Your task to perform on an android device: Check the news Image 0: 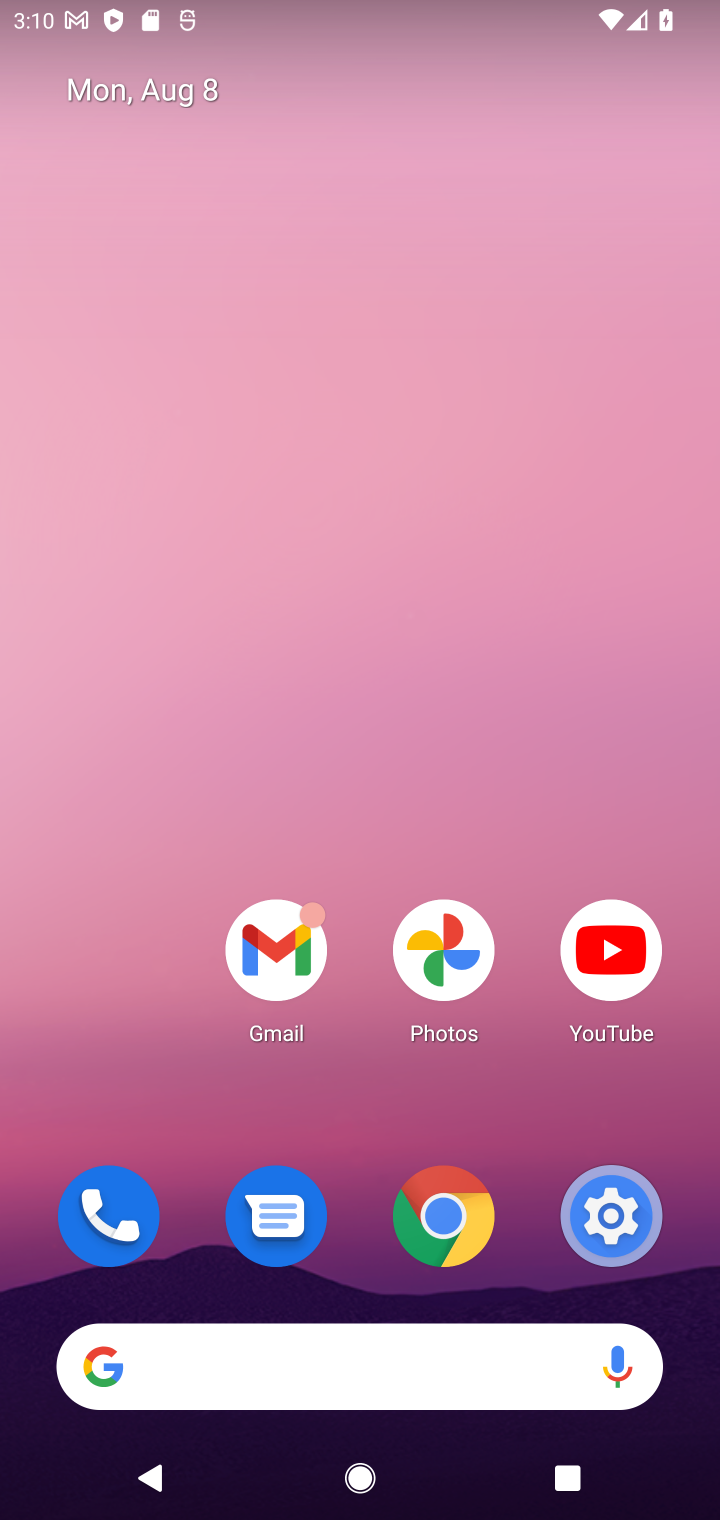
Step 0: drag from (3, 504) to (593, 578)
Your task to perform on an android device: Check the news Image 1: 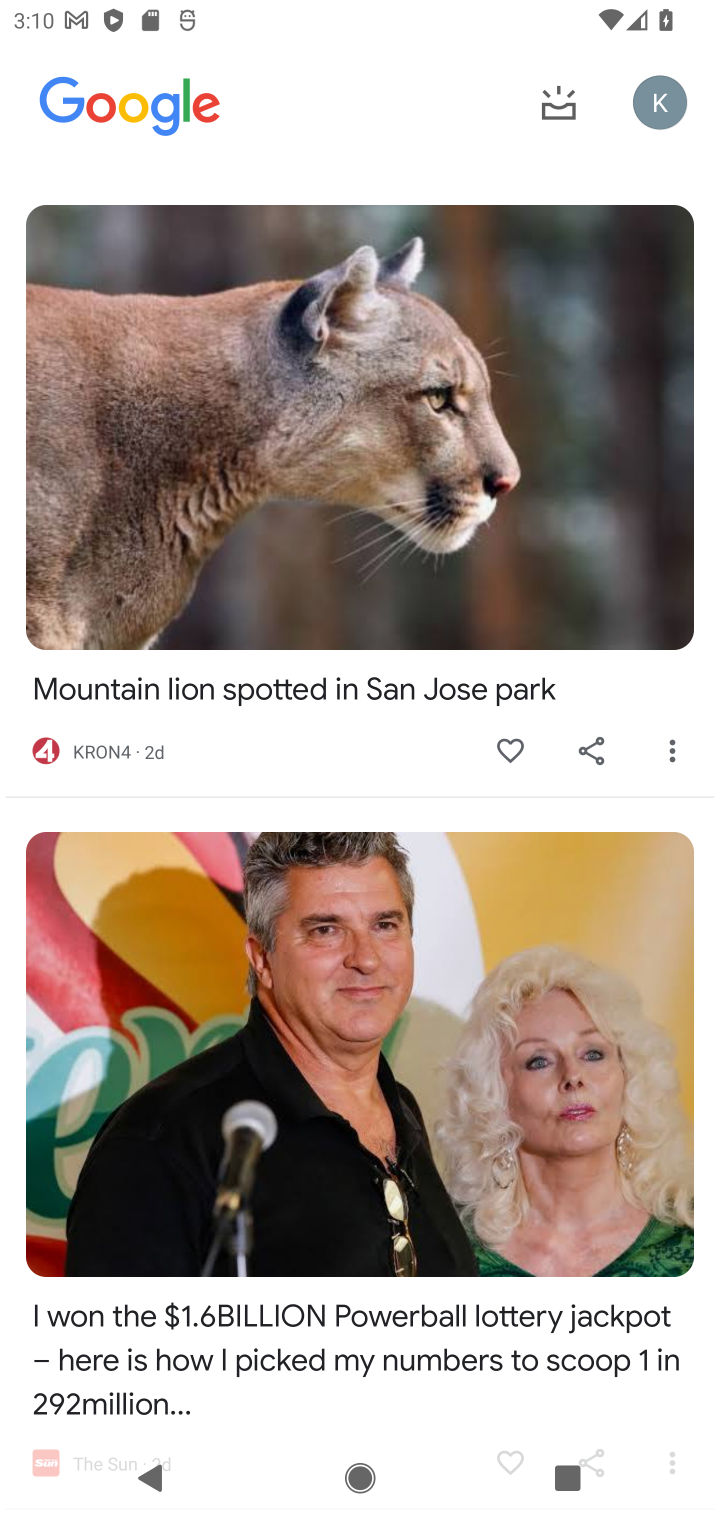
Step 1: task complete